Your task to perform on an android device: delete a single message in the gmail app Image 0: 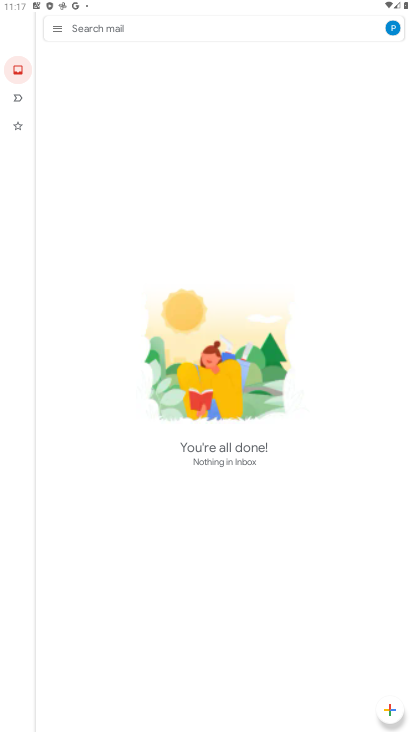
Step 0: task complete